Your task to perform on an android device: Is it going to rain today? Image 0: 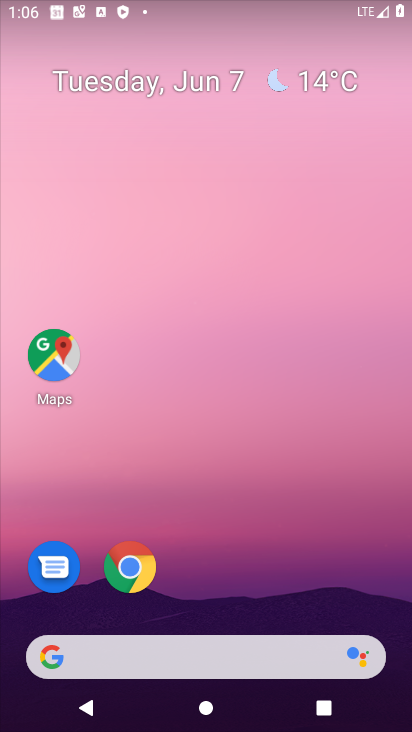
Step 0: drag from (37, 252) to (402, 238)
Your task to perform on an android device: Is it going to rain today? Image 1: 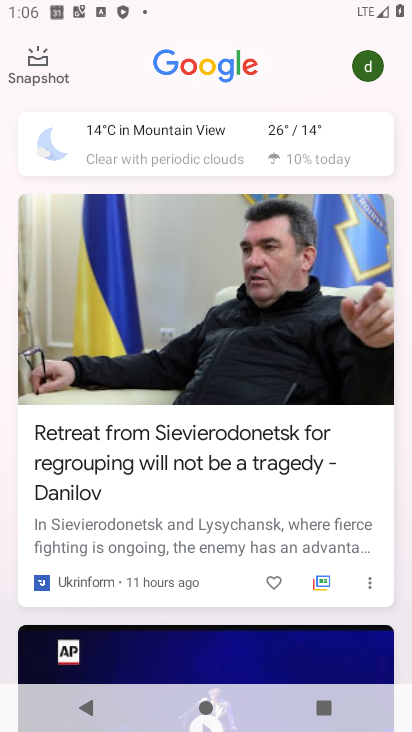
Step 1: click (310, 147)
Your task to perform on an android device: Is it going to rain today? Image 2: 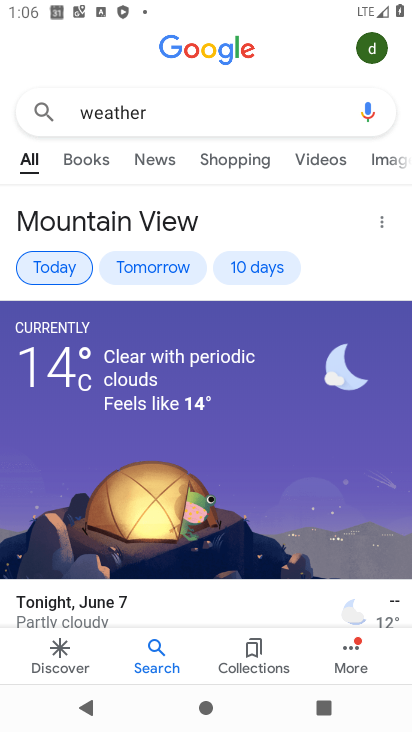
Step 2: task complete